Your task to perform on an android device: check out phone information Image 0: 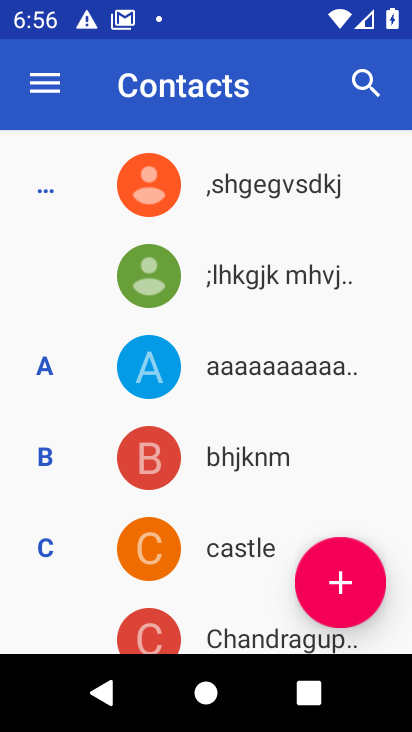
Step 0: press home button
Your task to perform on an android device: check out phone information Image 1: 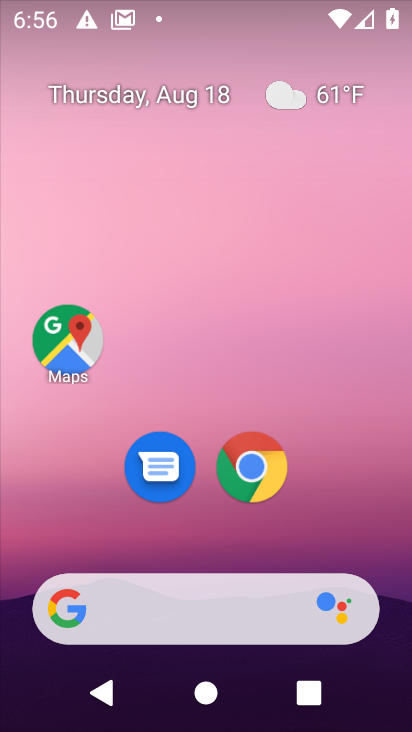
Step 1: task complete